Your task to perform on an android device: Open Yahoo.com Image 0: 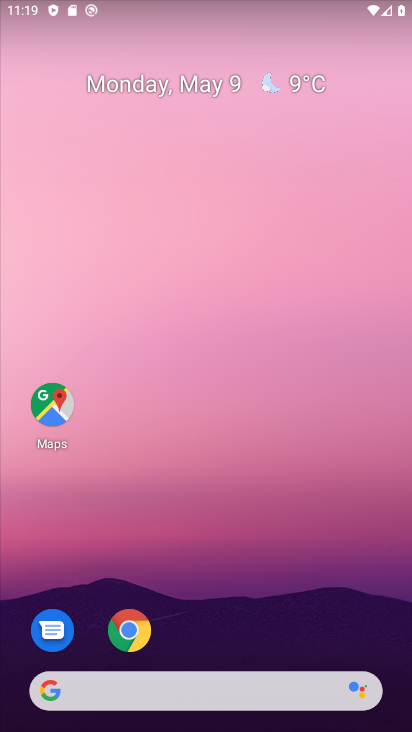
Step 0: click (119, 625)
Your task to perform on an android device: Open Yahoo.com Image 1: 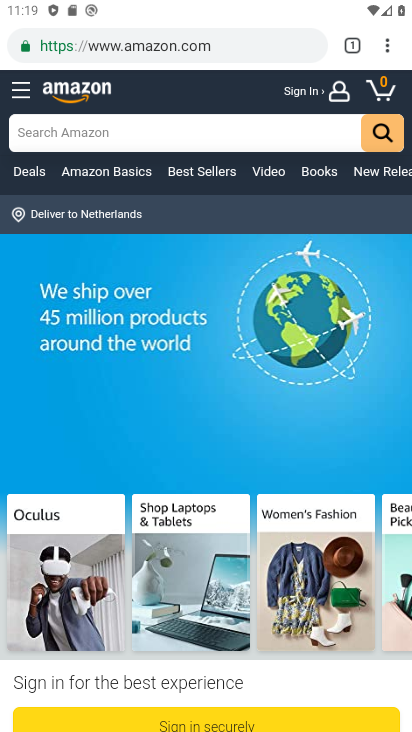
Step 1: click (388, 45)
Your task to perform on an android device: Open Yahoo.com Image 2: 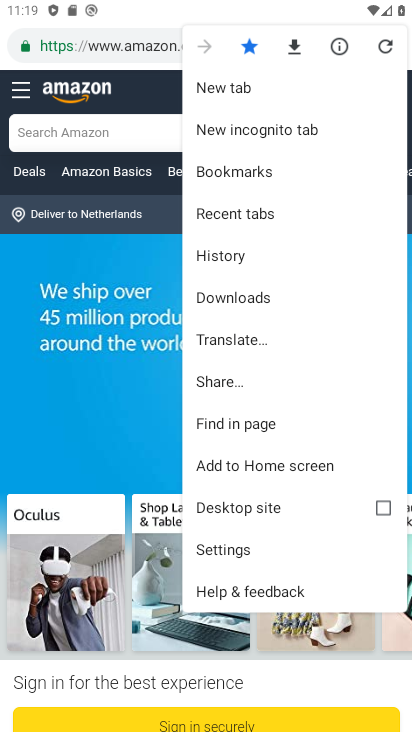
Step 2: click (234, 91)
Your task to perform on an android device: Open Yahoo.com Image 3: 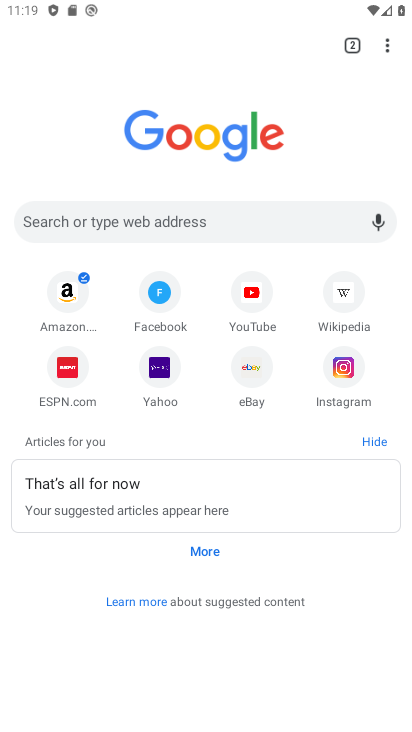
Step 3: click (159, 356)
Your task to perform on an android device: Open Yahoo.com Image 4: 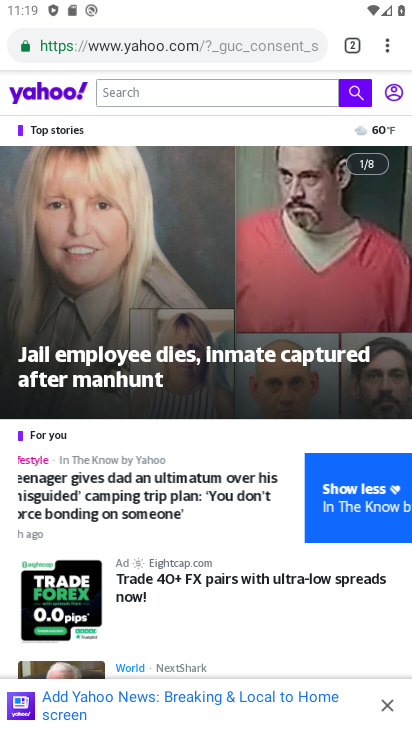
Step 4: task complete